Your task to perform on an android device: Open accessibility settings Image 0: 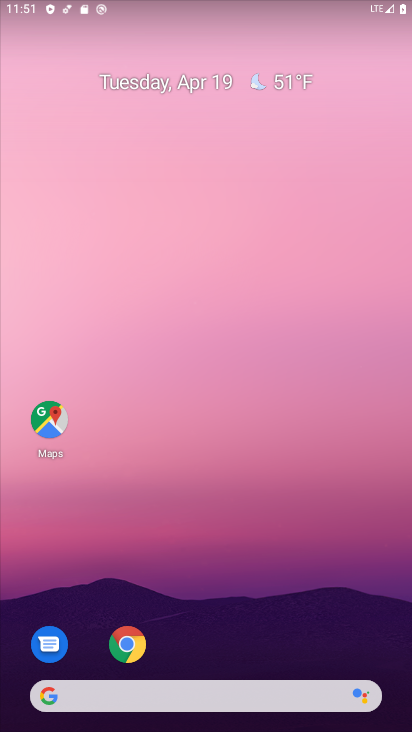
Step 0: drag from (212, 729) to (205, 81)
Your task to perform on an android device: Open accessibility settings Image 1: 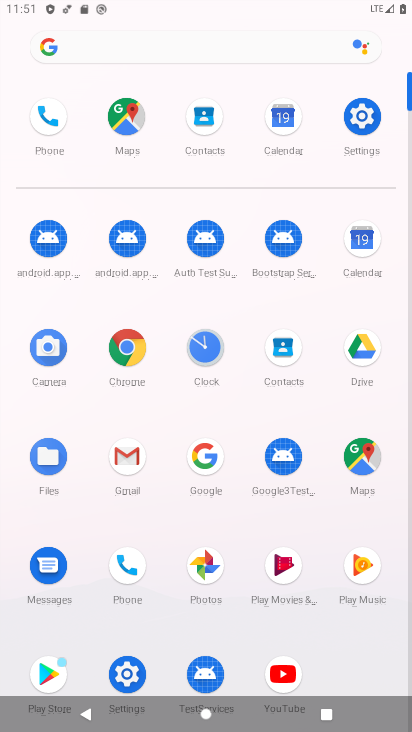
Step 1: click (357, 116)
Your task to perform on an android device: Open accessibility settings Image 2: 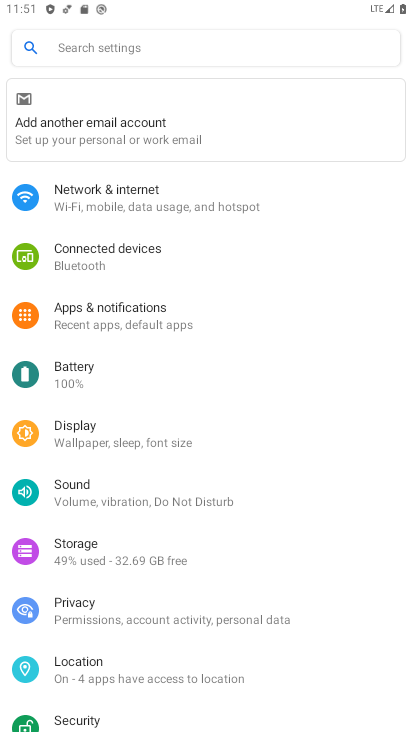
Step 2: drag from (189, 666) to (181, 215)
Your task to perform on an android device: Open accessibility settings Image 3: 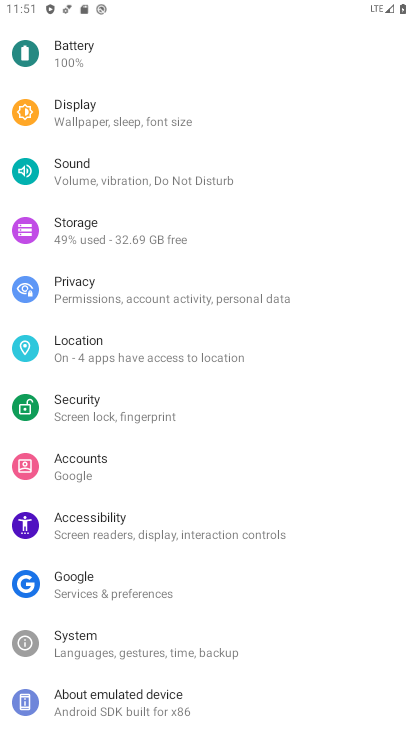
Step 3: click (103, 529)
Your task to perform on an android device: Open accessibility settings Image 4: 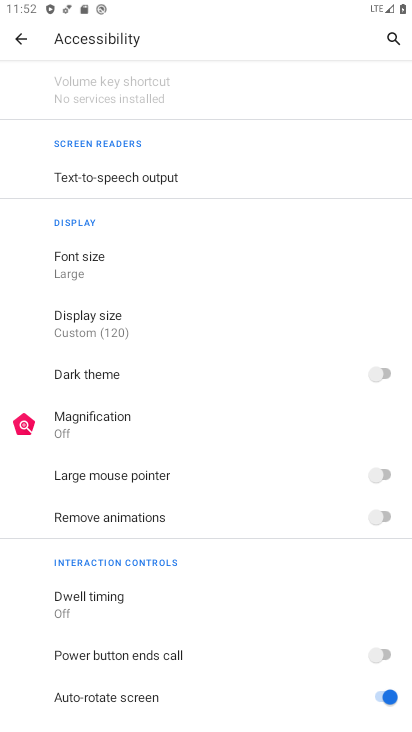
Step 4: task complete